Your task to perform on an android device: Open privacy settings Image 0: 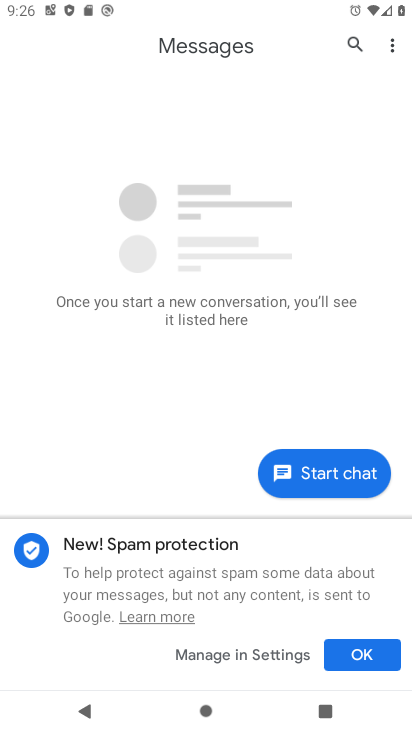
Step 0: press home button
Your task to perform on an android device: Open privacy settings Image 1: 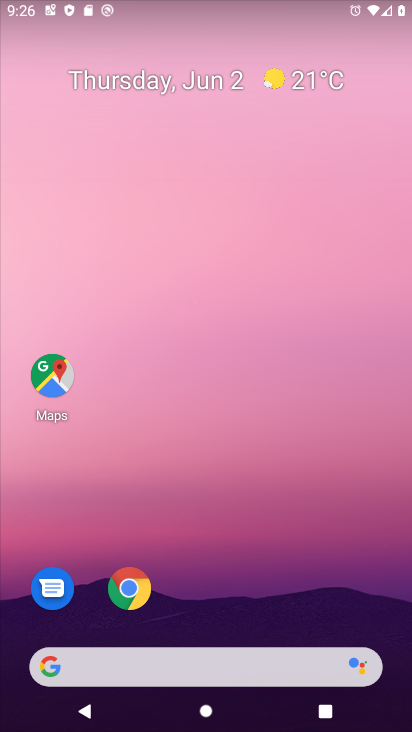
Step 1: drag from (208, 634) to (202, 34)
Your task to perform on an android device: Open privacy settings Image 2: 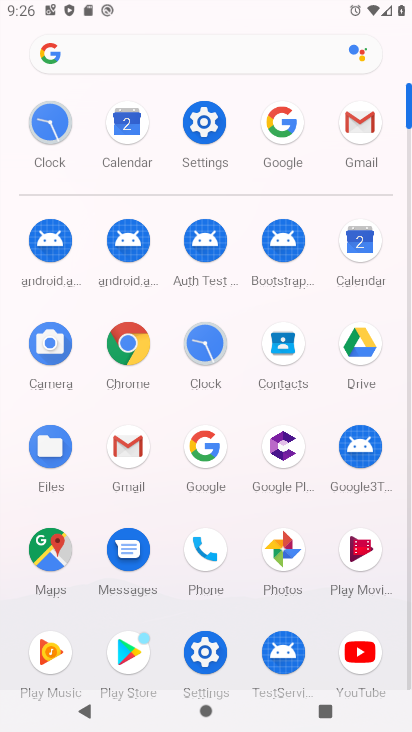
Step 2: click (188, 138)
Your task to perform on an android device: Open privacy settings Image 3: 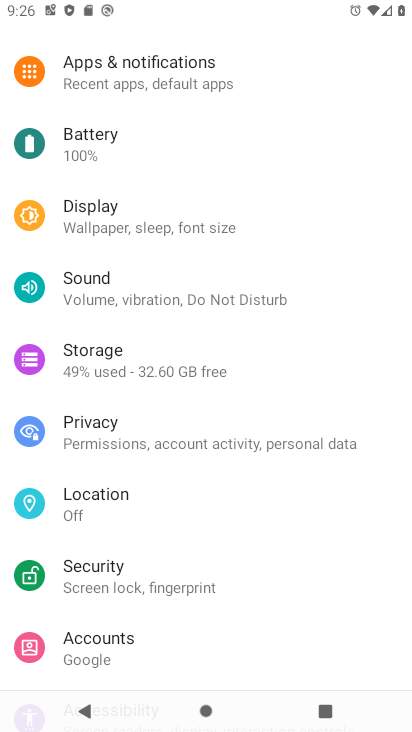
Step 3: click (106, 427)
Your task to perform on an android device: Open privacy settings Image 4: 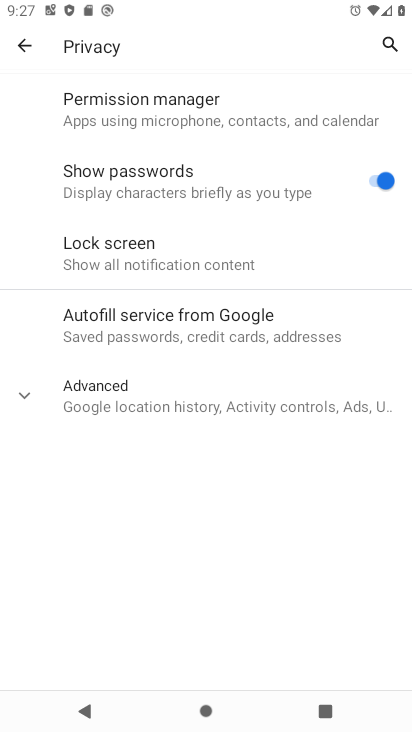
Step 4: task complete